Your task to perform on an android device: Open Google Chrome and open the bookmarks view Image 0: 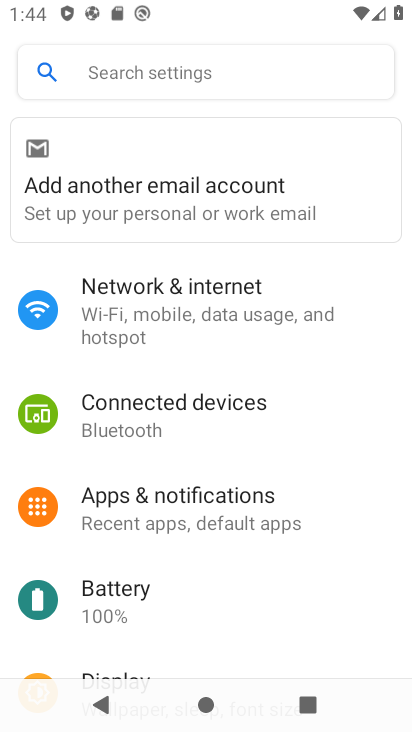
Step 0: press home button
Your task to perform on an android device: Open Google Chrome and open the bookmarks view Image 1: 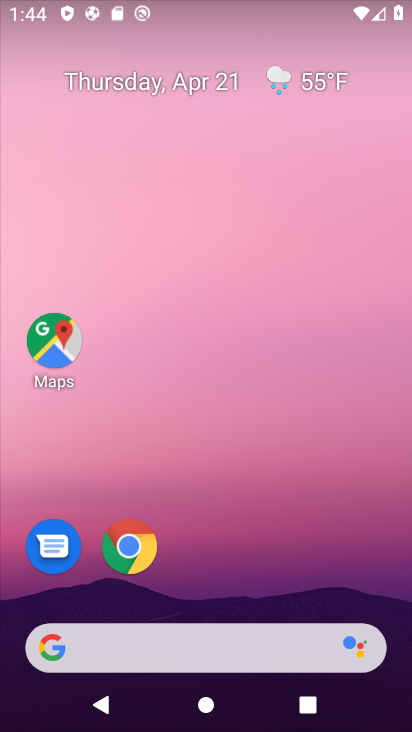
Step 1: click (140, 536)
Your task to perform on an android device: Open Google Chrome and open the bookmarks view Image 2: 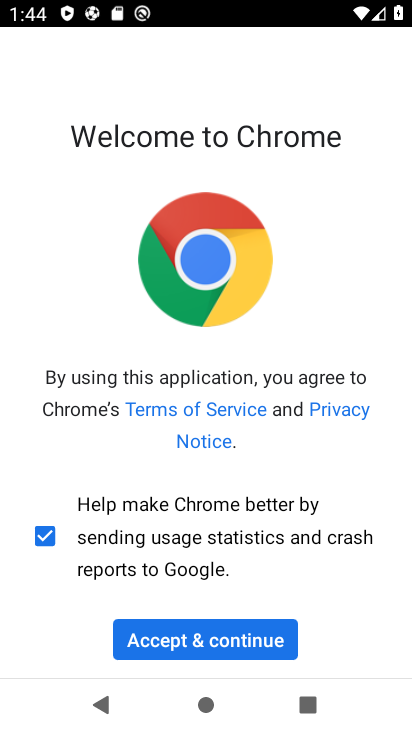
Step 2: click (187, 653)
Your task to perform on an android device: Open Google Chrome and open the bookmarks view Image 3: 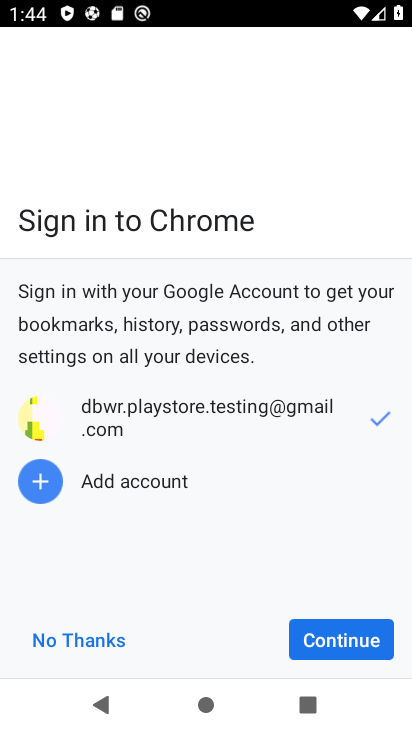
Step 3: click (334, 654)
Your task to perform on an android device: Open Google Chrome and open the bookmarks view Image 4: 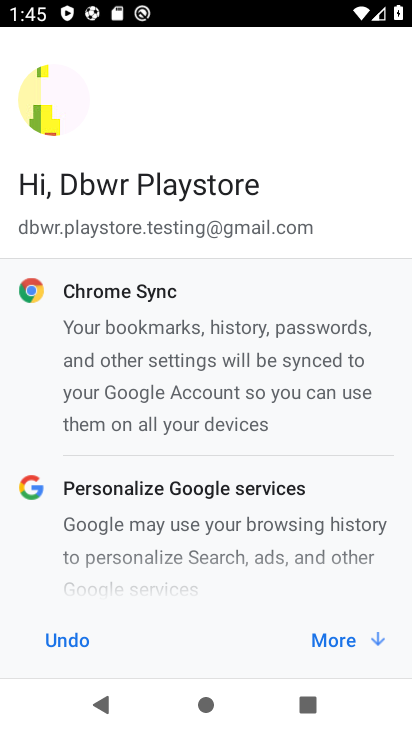
Step 4: click (356, 645)
Your task to perform on an android device: Open Google Chrome and open the bookmarks view Image 5: 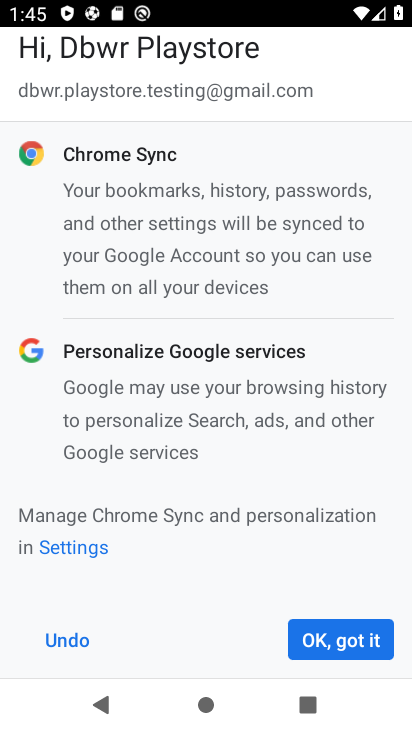
Step 5: click (328, 648)
Your task to perform on an android device: Open Google Chrome and open the bookmarks view Image 6: 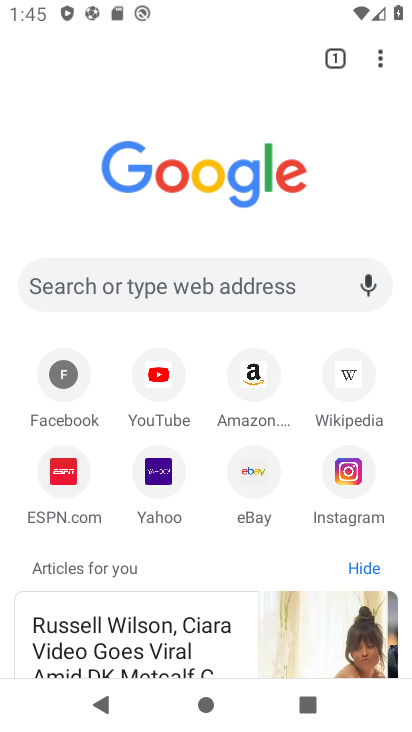
Step 6: click (388, 59)
Your task to perform on an android device: Open Google Chrome and open the bookmarks view Image 7: 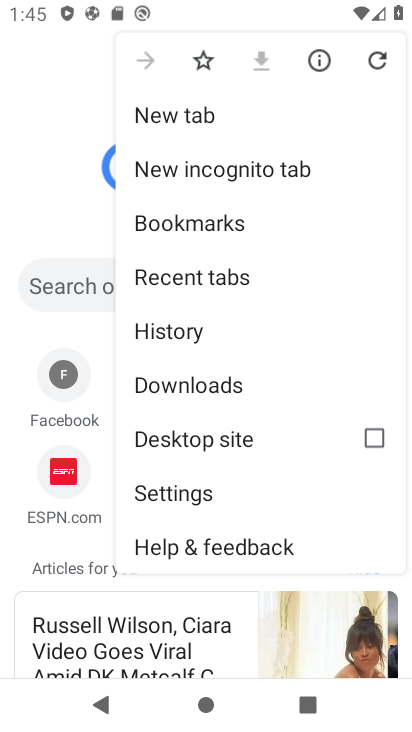
Step 7: click (198, 502)
Your task to perform on an android device: Open Google Chrome and open the bookmarks view Image 8: 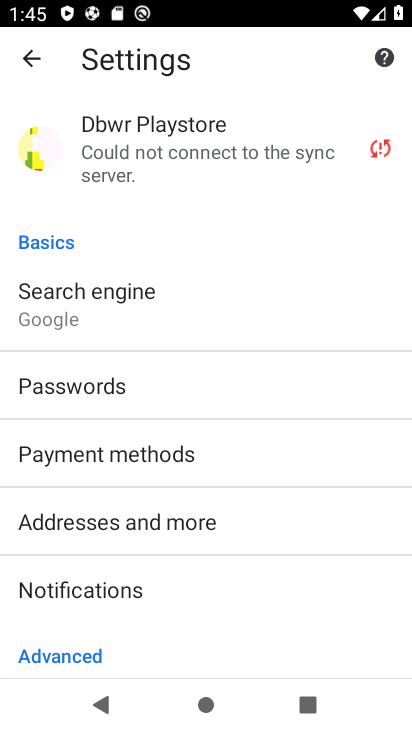
Step 8: click (36, 53)
Your task to perform on an android device: Open Google Chrome and open the bookmarks view Image 9: 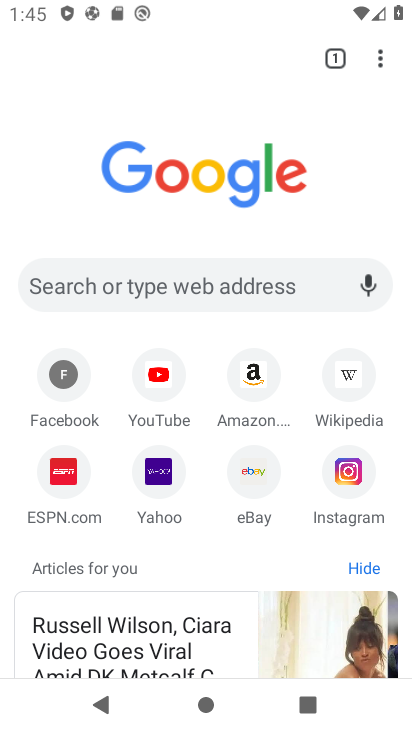
Step 9: click (386, 57)
Your task to perform on an android device: Open Google Chrome and open the bookmarks view Image 10: 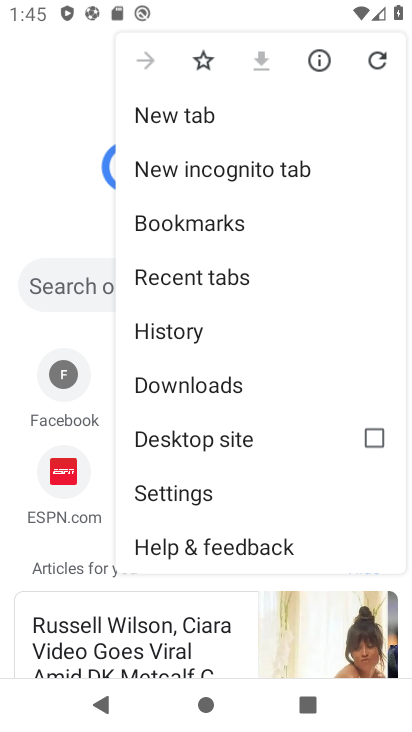
Step 10: click (218, 240)
Your task to perform on an android device: Open Google Chrome and open the bookmarks view Image 11: 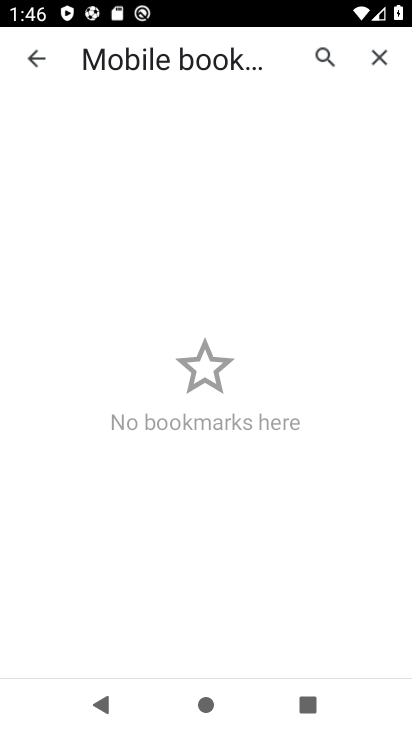
Step 11: task complete